Your task to perform on an android device: empty trash in the gmail app Image 0: 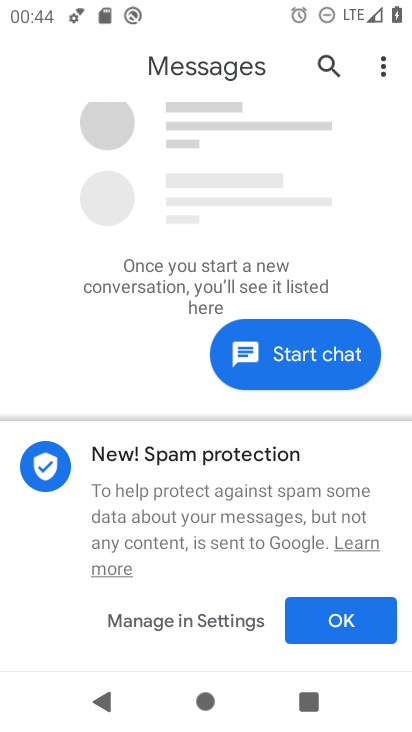
Step 0: press home button
Your task to perform on an android device: empty trash in the gmail app Image 1: 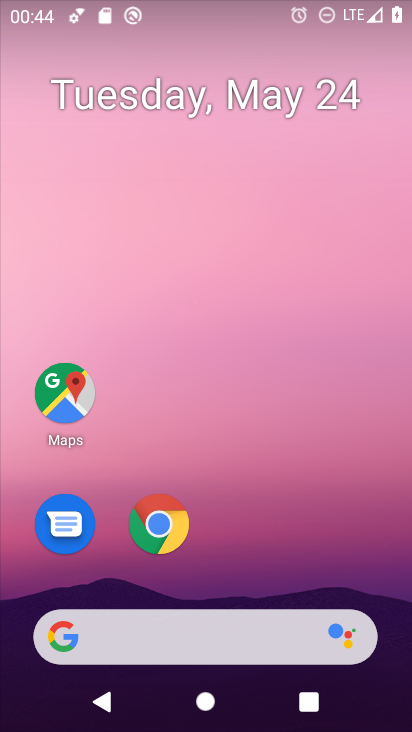
Step 1: drag from (229, 569) to (246, 181)
Your task to perform on an android device: empty trash in the gmail app Image 2: 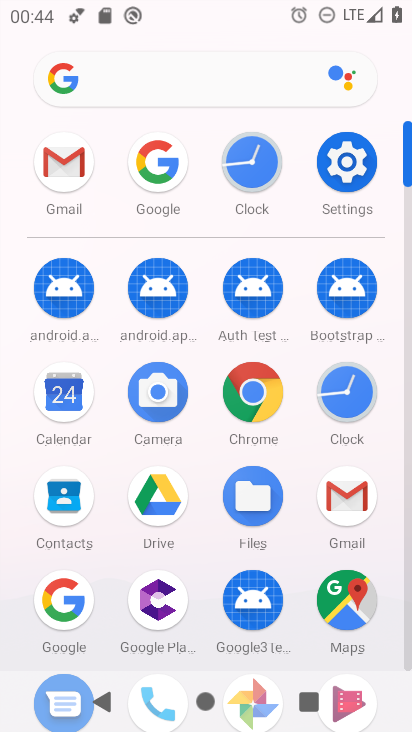
Step 2: click (67, 183)
Your task to perform on an android device: empty trash in the gmail app Image 3: 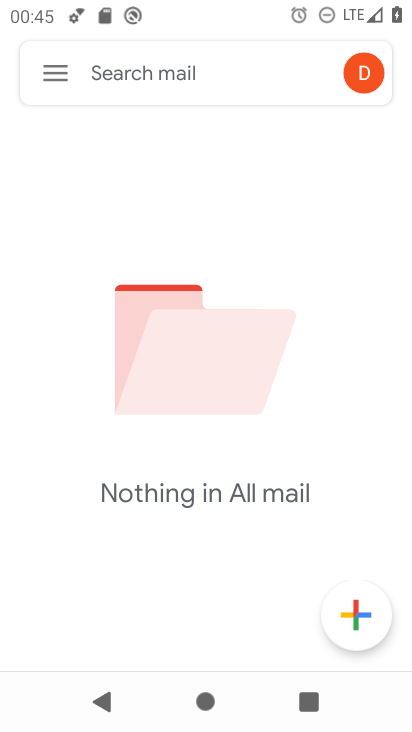
Step 3: click (49, 58)
Your task to perform on an android device: empty trash in the gmail app Image 4: 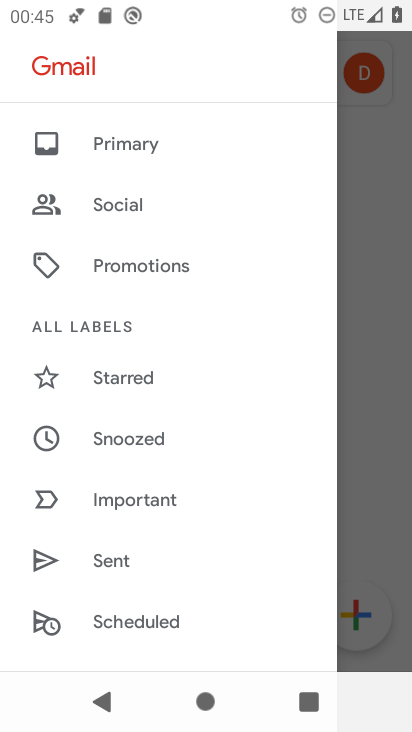
Step 4: drag from (168, 592) to (182, 188)
Your task to perform on an android device: empty trash in the gmail app Image 5: 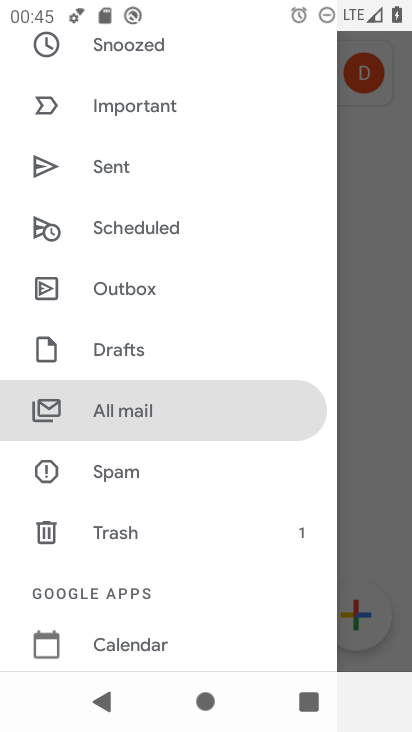
Step 5: click (142, 536)
Your task to perform on an android device: empty trash in the gmail app Image 6: 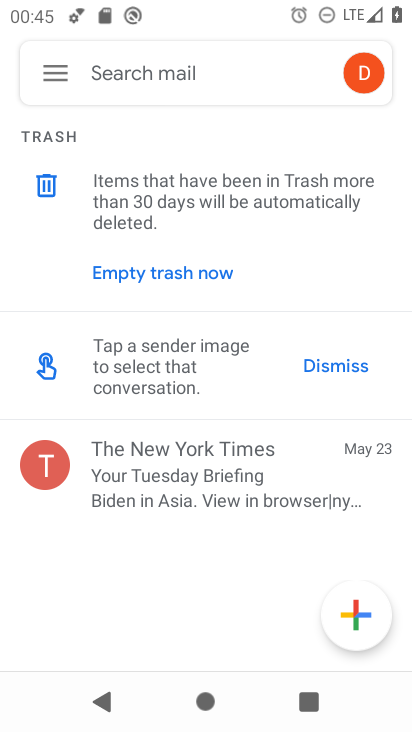
Step 6: click (131, 267)
Your task to perform on an android device: empty trash in the gmail app Image 7: 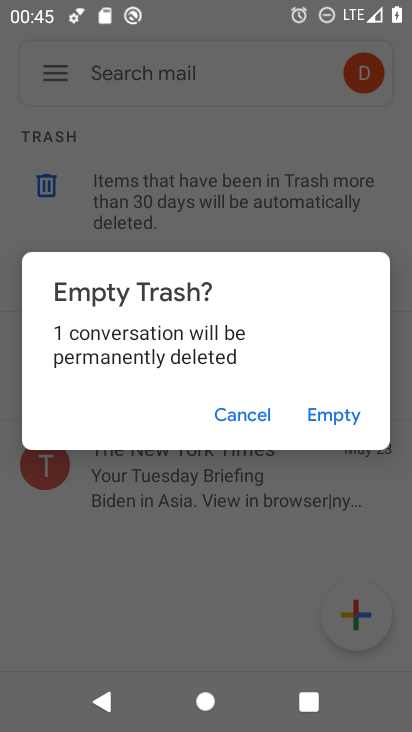
Step 7: click (319, 409)
Your task to perform on an android device: empty trash in the gmail app Image 8: 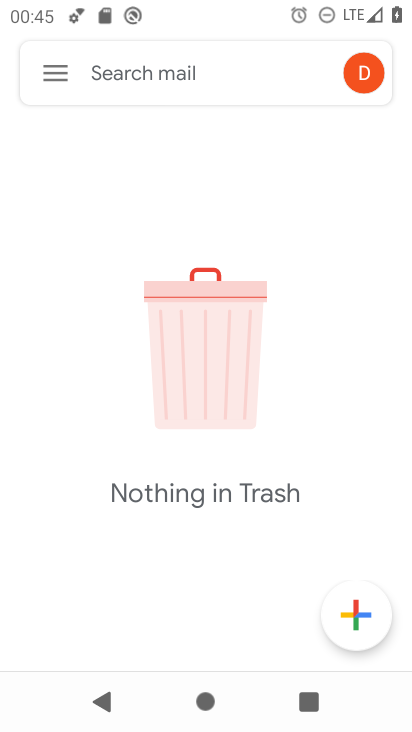
Step 8: task complete